Your task to perform on an android device: check android version Image 0: 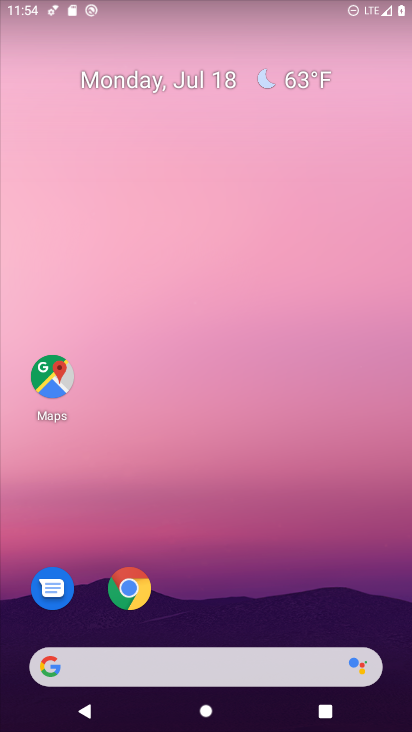
Step 0: drag from (187, 647) to (279, 12)
Your task to perform on an android device: check android version Image 1: 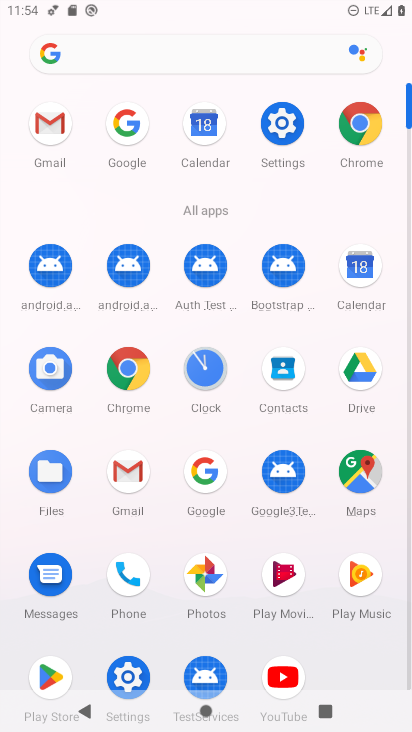
Step 1: click (286, 121)
Your task to perform on an android device: check android version Image 2: 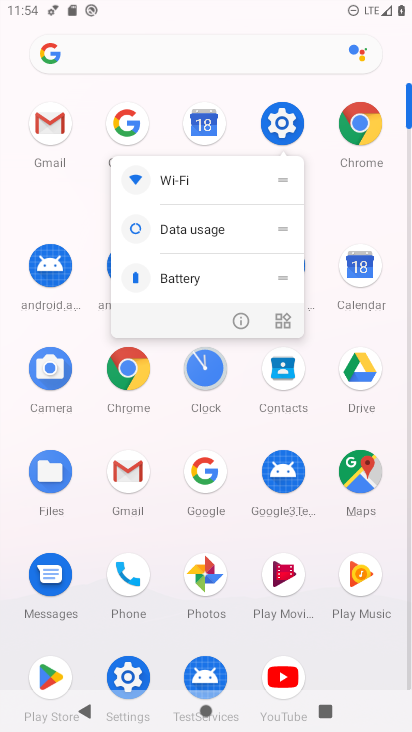
Step 2: click (290, 120)
Your task to perform on an android device: check android version Image 3: 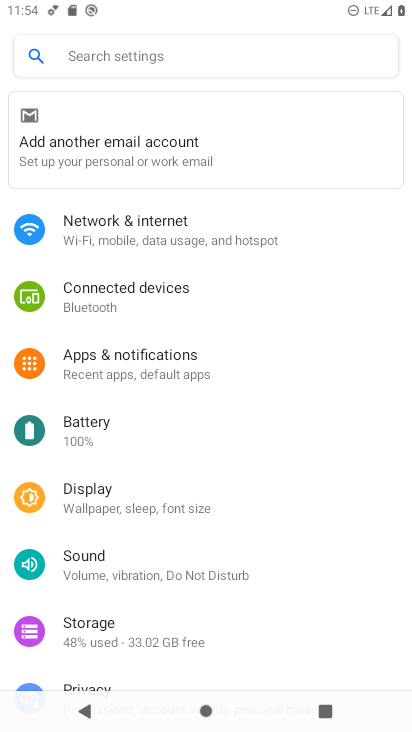
Step 3: drag from (201, 680) to (254, 176)
Your task to perform on an android device: check android version Image 4: 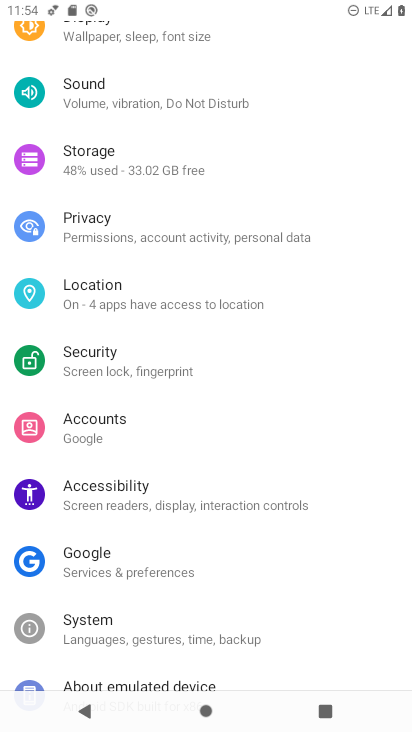
Step 4: drag from (125, 660) to (206, 221)
Your task to perform on an android device: check android version Image 5: 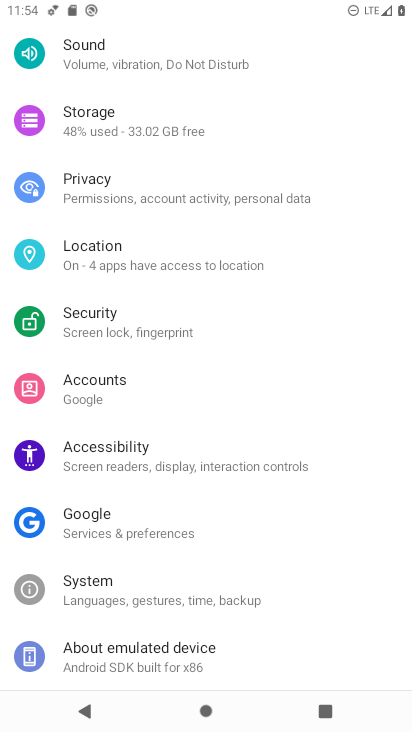
Step 5: click (107, 651)
Your task to perform on an android device: check android version Image 6: 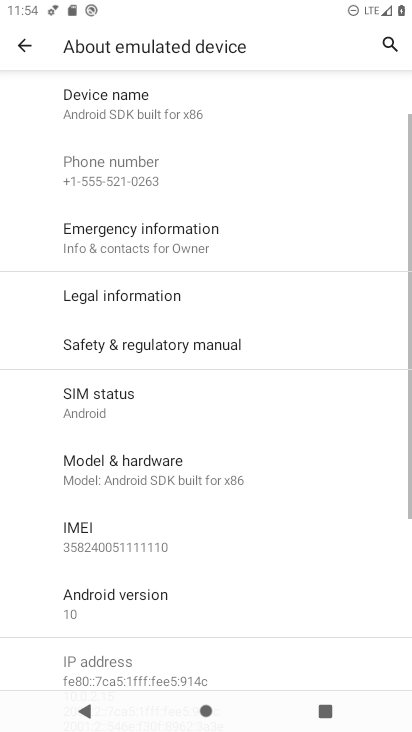
Step 6: task complete